Your task to perform on an android device: turn on showing notifications on the lock screen Image 0: 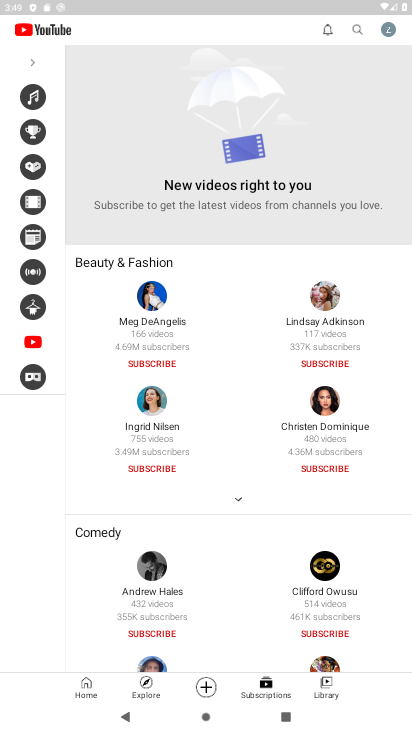
Step 0: press home button
Your task to perform on an android device: turn on showing notifications on the lock screen Image 1: 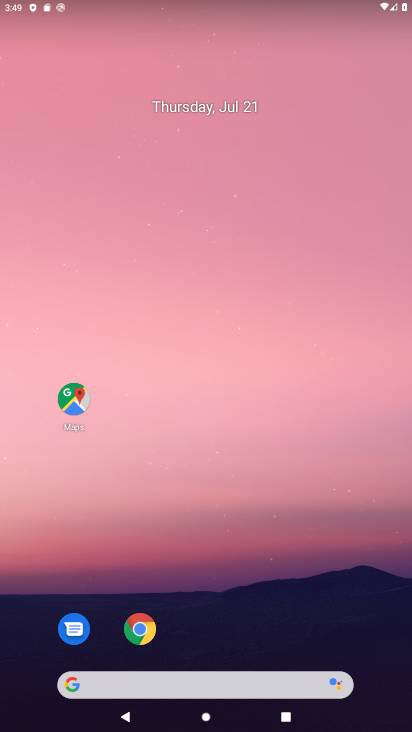
Step 1: drag from (227, 644) to (148, 112)
Your task to perform on an android device: turn on showing notifications on the lock screen Image 2: 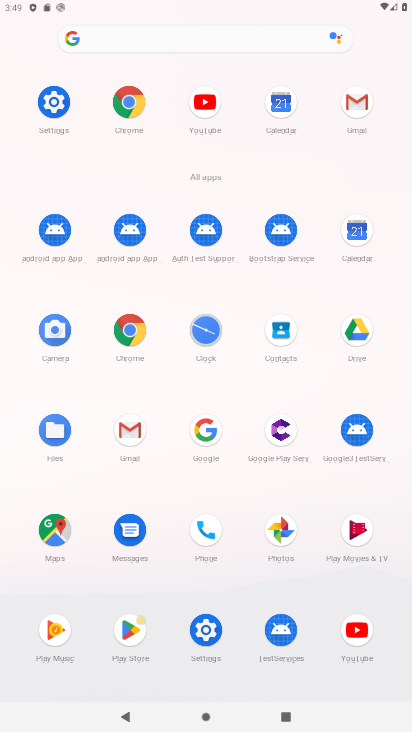
Step 2: click (57, 118)
Your task to perform on an android device: turn on showing notifications on the lock screen Image 3: 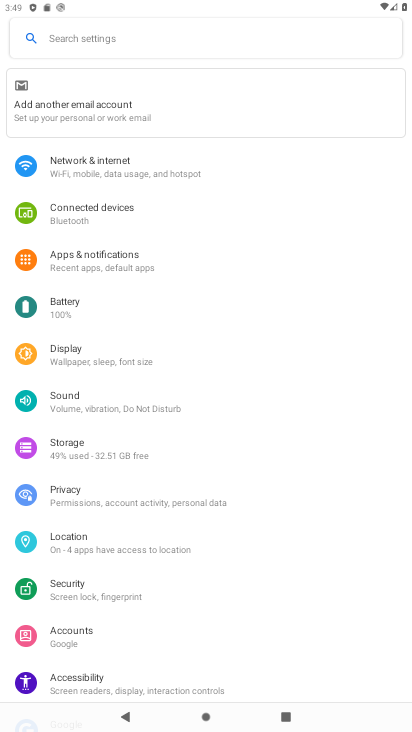
Step 3: click (145, 256)
Your task to perform on an android device: turn on showing notifications on the lock screen Image 4: 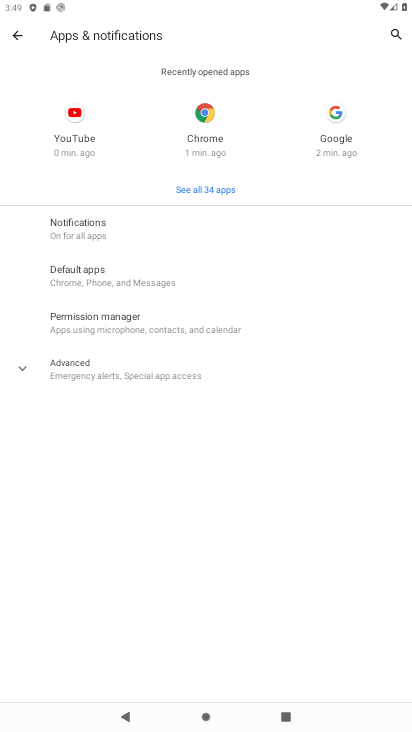
Step 4: click (140, 242)
Your task to perform on an android device: turn on showing notifications on the lock screen Image 5: 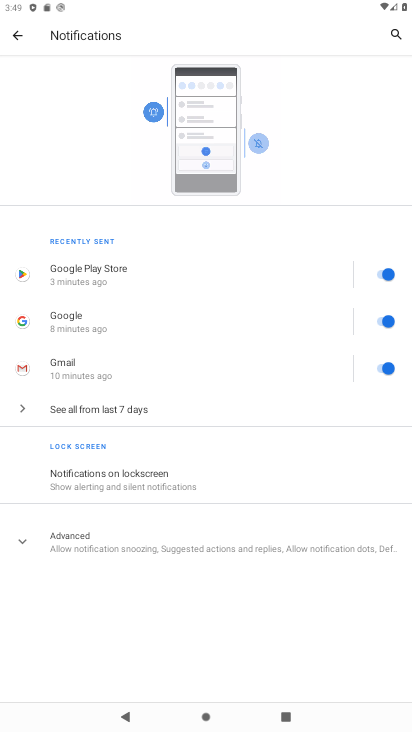
Step 5: click (156, 475)
Your task to perform on an android device: turn on showing notifications on the lock screen Image 6: 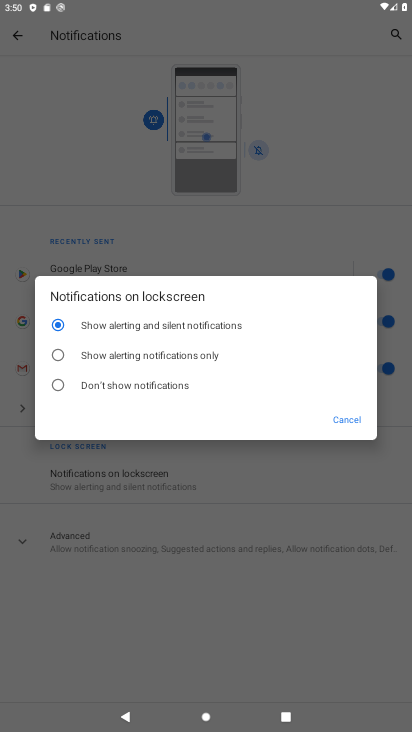
Step 6: task complete